Your task to perform on an android device: Set the phone to "Do not disturb". Image 0: 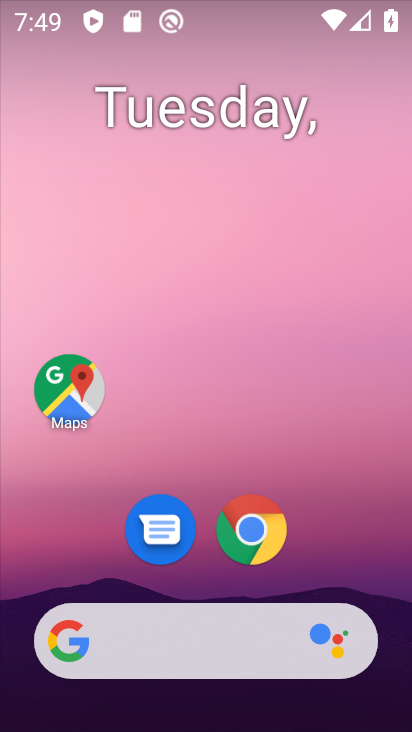
Step 0: drag from (214, 634) to (329, 99)
Your task to perform on an android device: Set the phone to "Do not disturb". Image 1: 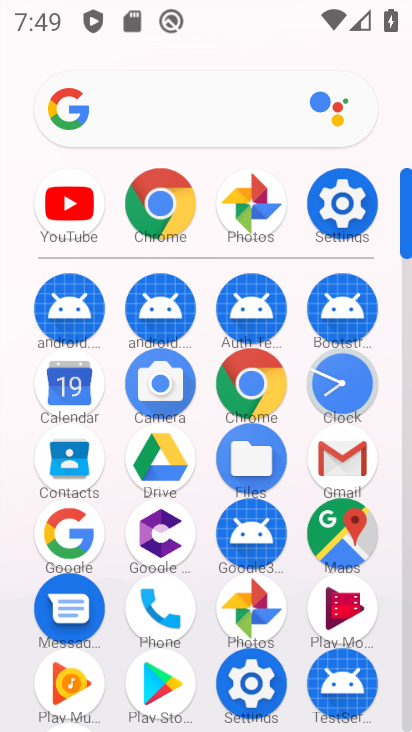
Step 1: click (341, 210)
Your task to perform on an android device: Set the phone to "Do not disturb". Image 2: 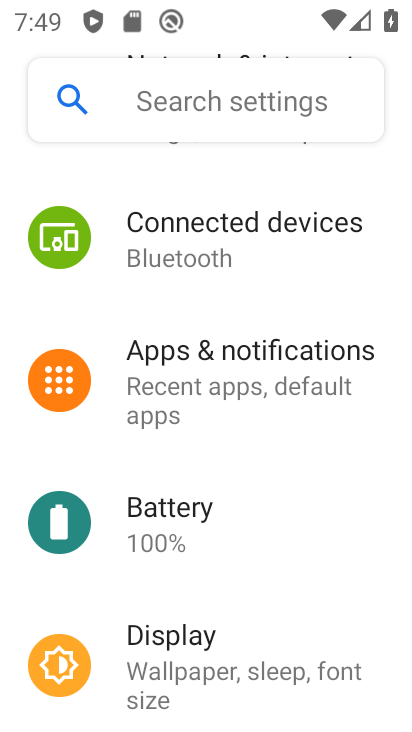
Step 2: drag from (246, 617) to (344, 192)
Your task to perform on an android device: Set the phone to "Do not disturb". Image 3: 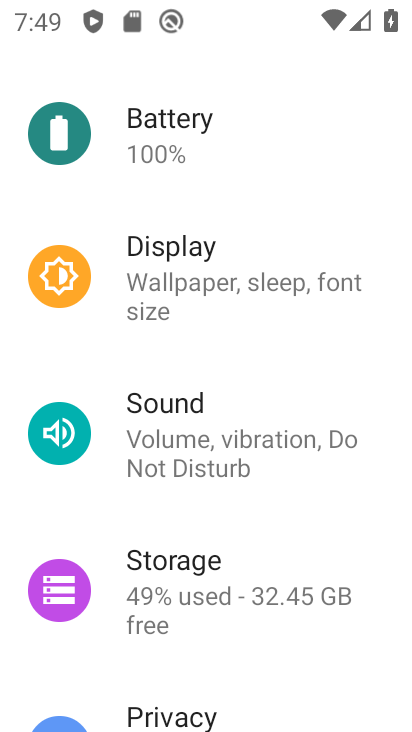
Step 3: click (245, 444)
Your task to perform on an android device: Set the phone to "Do not disturb". Image 4: 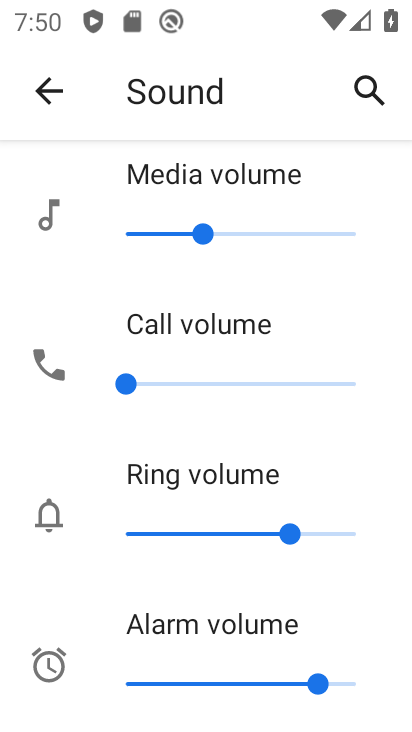
Step 4: drag from (189, 636) to (399, 151)
Your task to perform on an android device: Set the phone to "Do not disturb". Image 5: 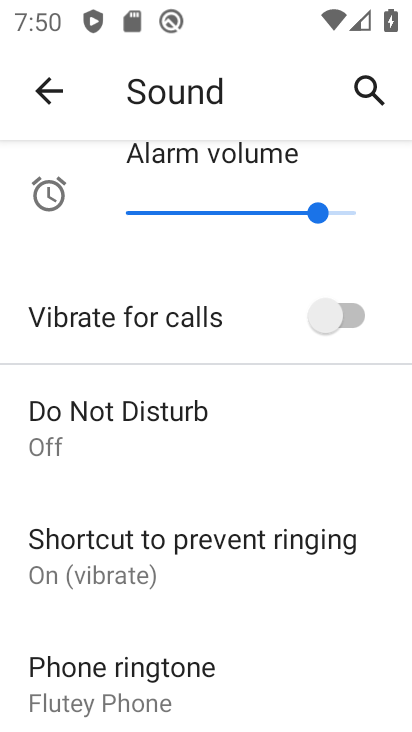
Step 5: click (139, 409)
Your task to perform on an android device: Set the phone to "Do not disturb". Image 6: 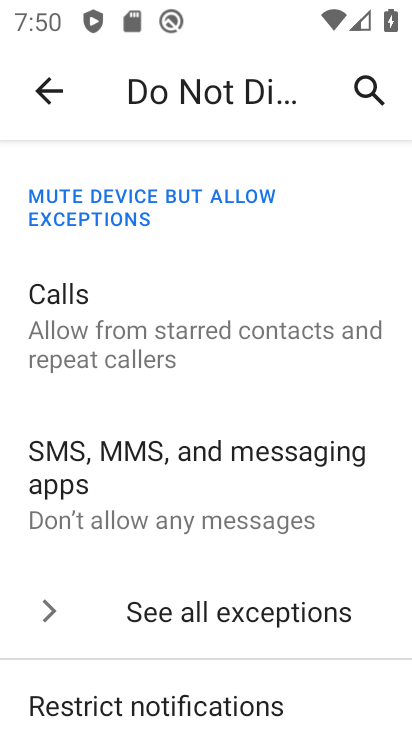
Step 6: drag from (102, 666) to (330, 165)
Your task to perform on an android device: Set the phone to "Do not disturb". Image 7: 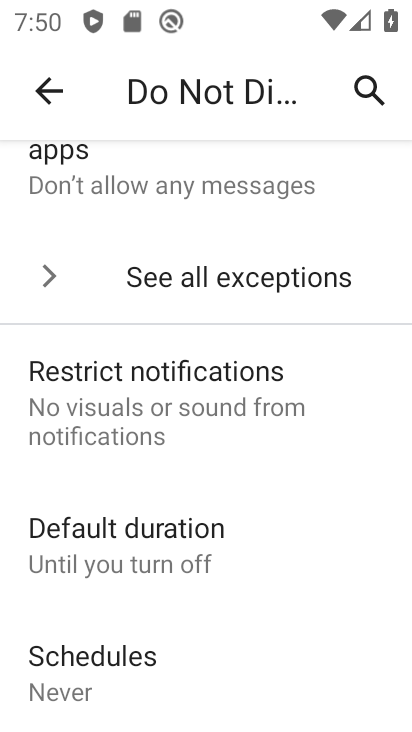
Step 7: drag from (174, 653) to (311, 291)
Your task to perform on an android device: Set the phone to "Do not disturb". Image 8: 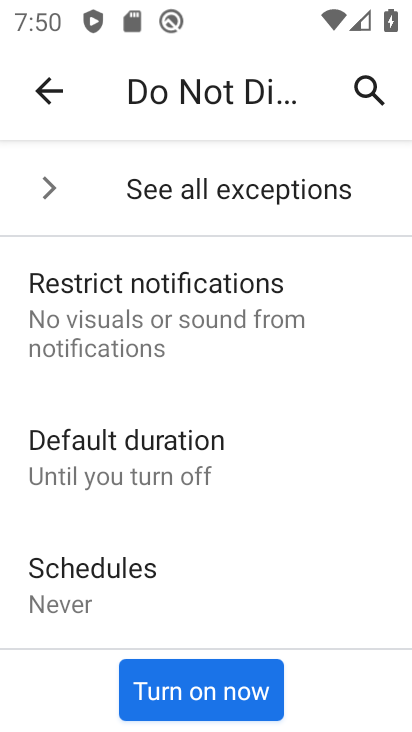
Step 8: click (166, 688)
Your task to perform on an android device: Set the phone to "Do not disturb". Image 9: 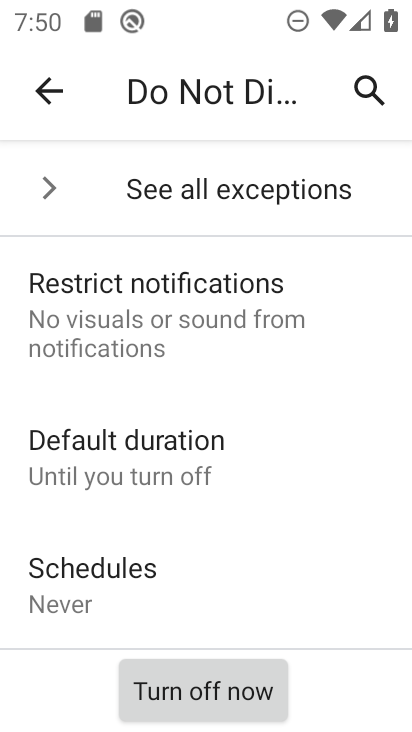
Step 9: task complete